Your task to perform on an android device: turn off notifications in google photos Image 0: 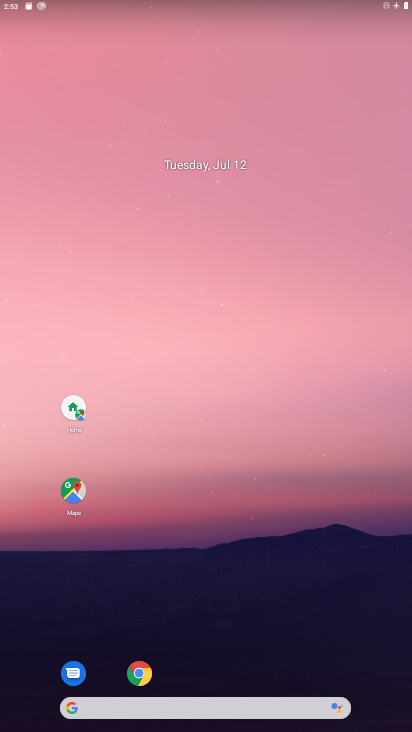
Step 0: drag from (228, 611) to (224, 275)
Your task to perform on an android device: turn off notifications in google photos Image 1: 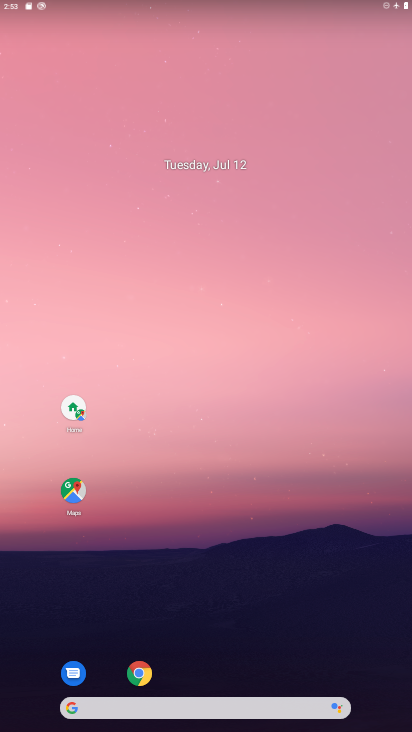
Step 1: drag from (252, 667) to (269, 258)
Your task to perform on an android device: turn off notifications in google photos Image 2: 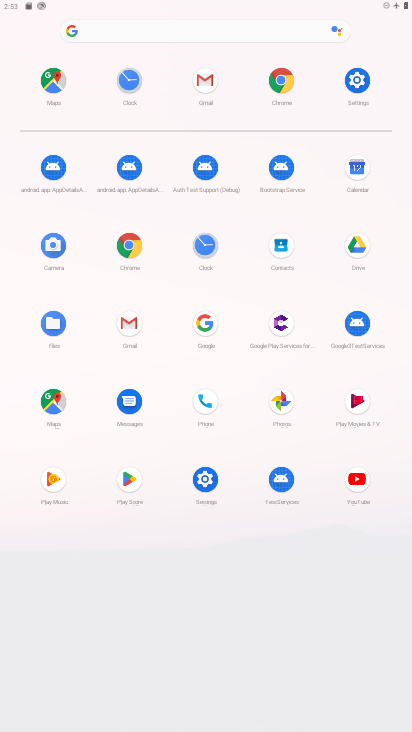
Step 2: click (273, 397)
Your task to perform on an android device: turn off notifications in google photos Image 3: 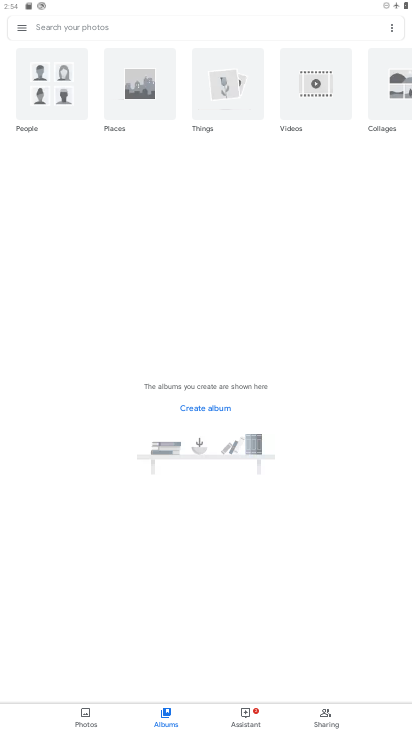
Step 3: click (18, 23)
Your task to perform on an android device: turn off notifications in google photos Image 4: 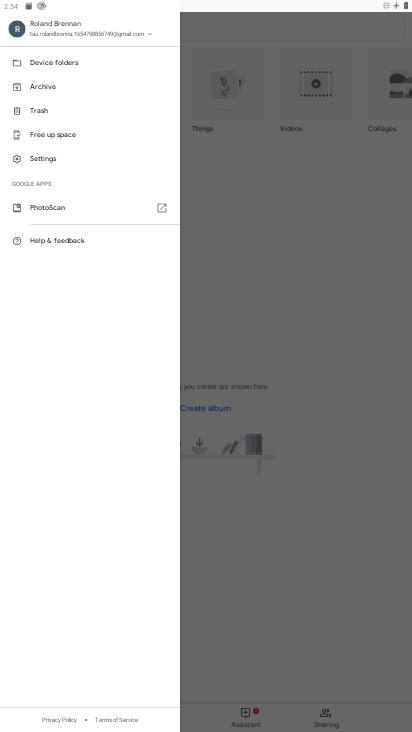
Step 4: click (54, 162)
Your task to perform on an android device: turn off notifications in google photos Image 5: 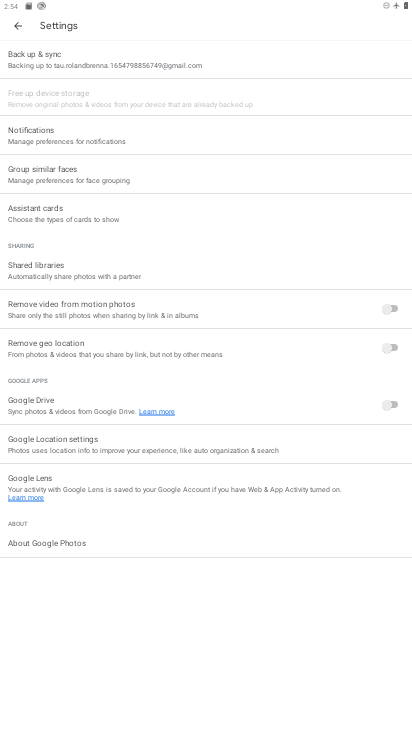
Step 5: click (97, 134)
Your task to perform on an android device: turn off notifications in google photos Image 6: 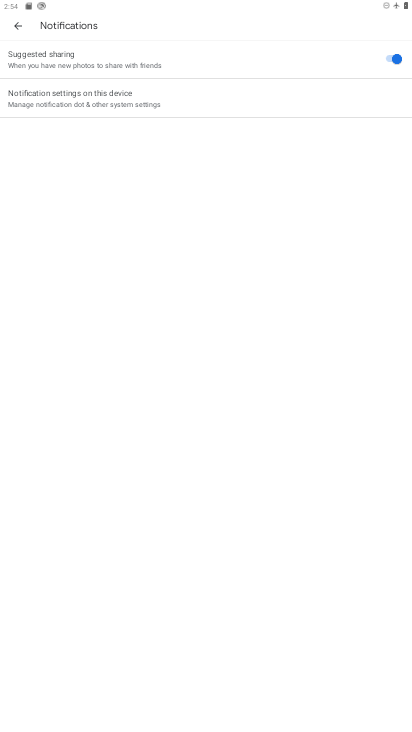
Step 6: drag from (381, 55) to (58, 62)
Your task to perform on an android device: turn off notifications in google photos Image 7: 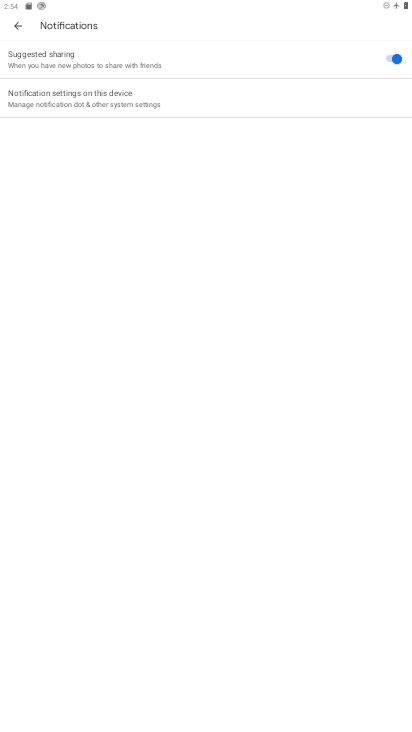
Step 7: drag from (64, 68) to (88, 95)
Your task to perform on an android device: turn off notifications in google photos Image 8: 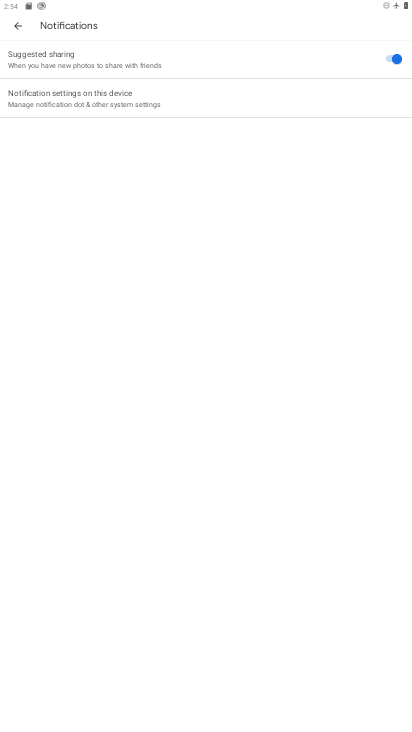
Step 8: click (250, 95)
Your task to perform on an android device: turn off notifications in google photos Image 9: 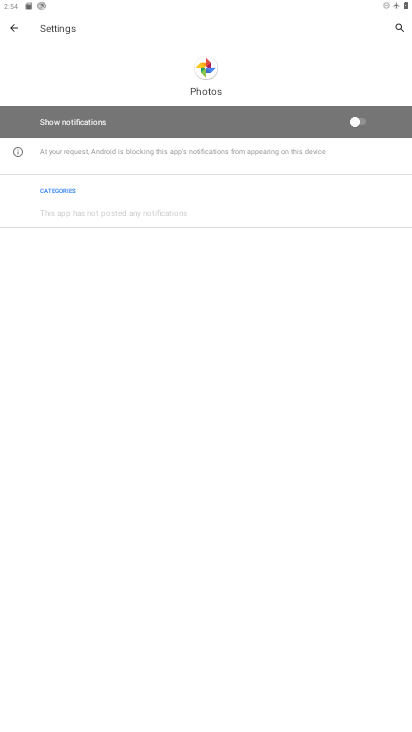
Step 9: task complete